Your task to perform on an android device: Go to CNN.com Image 0: 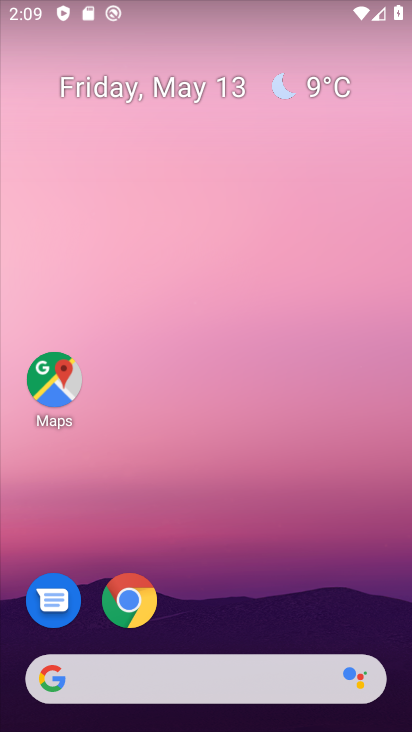
Step 0: click (123, 605)
Your task to perform on an android device: Go to CNN.com Image 1: 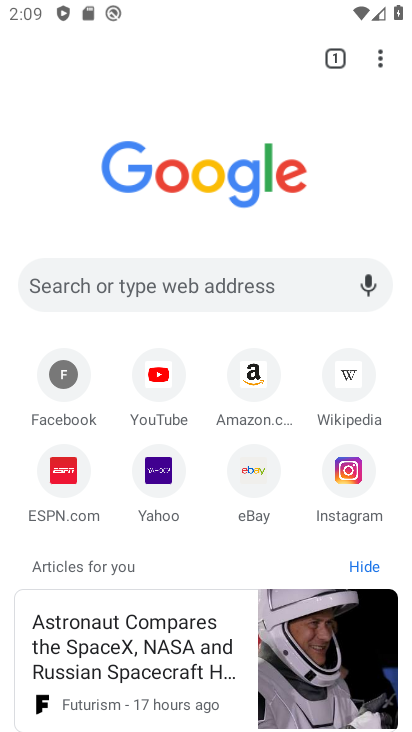
Step 1: click (273, 266)
Your task to perform on an android device: Go to CNN.com Image 2: 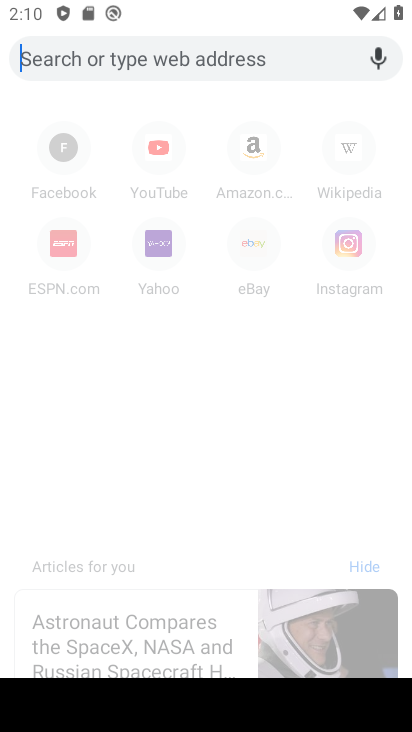
Step 2: type "CNN.com"
Your task to perform on an android device: Go to CNN.com Image 3: 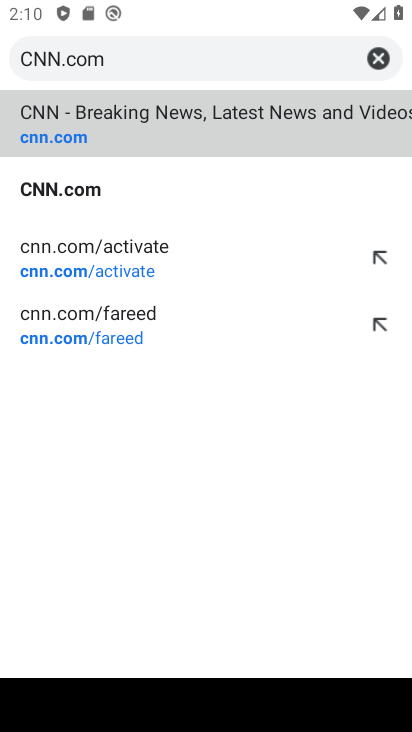
Step 3: click (80, 136)
Your task to perform on an android device: Go to CNN.com Image 4: 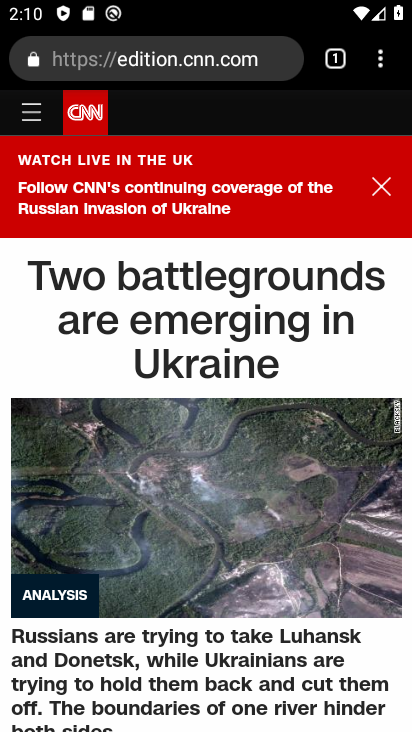
Step 4: task complete